Your task to perform on an android device: Open my contact list Image 0: 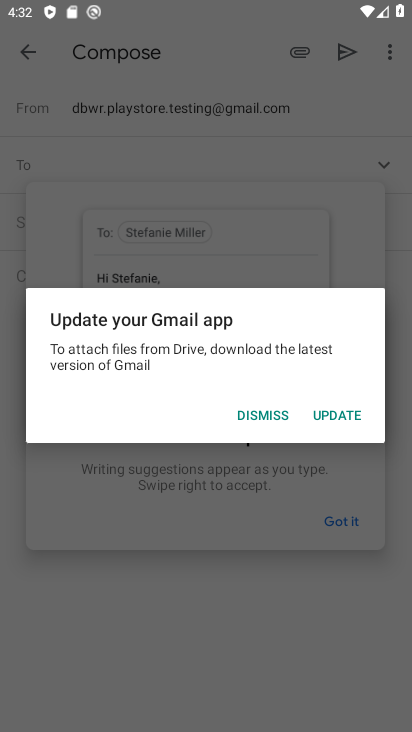
Step 0: press home button
Your task to perform on an android device: Open my contact list Image 1: 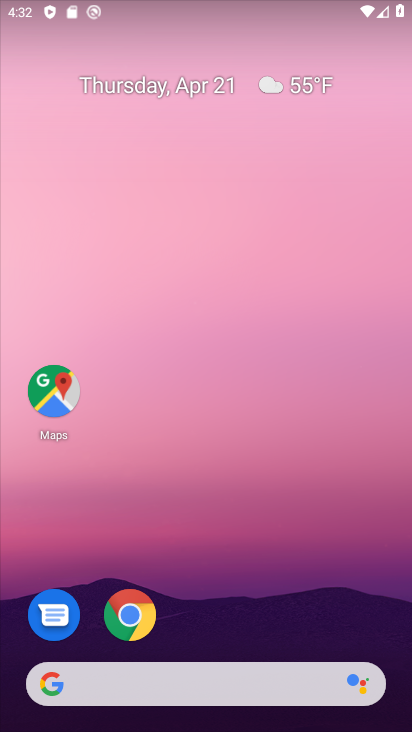
Step 1: drag from (209, 637) to (206, 155)
Your task to perform on an android device: Open my contact list Image 2: 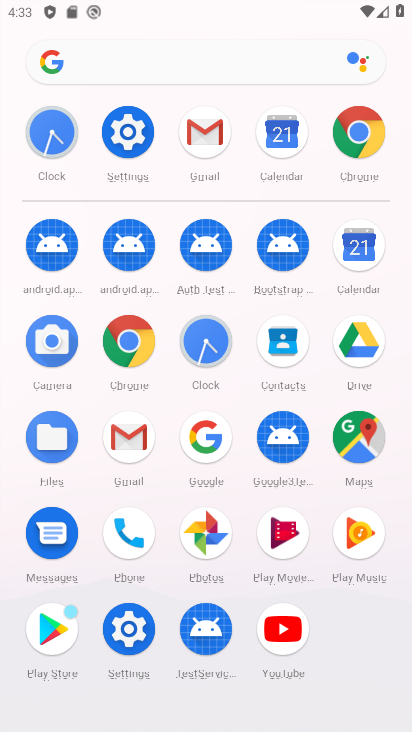
Step 2: click (284, 351)
Your task to perform on an android device: Open my contact list Image 3: 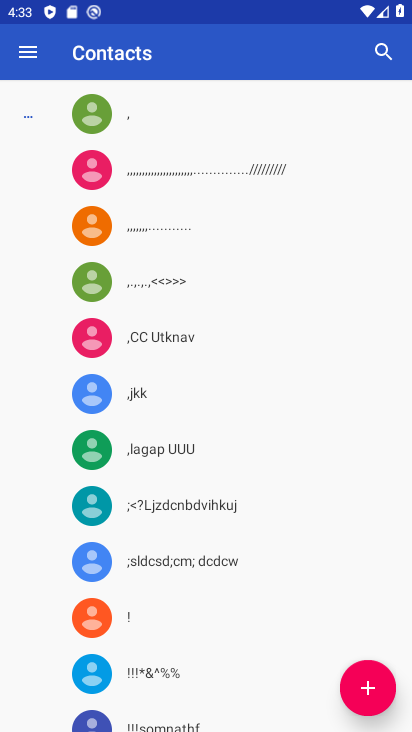
Step 3: task complete